Your task to perform on an android device: What is the news today? Image 0: 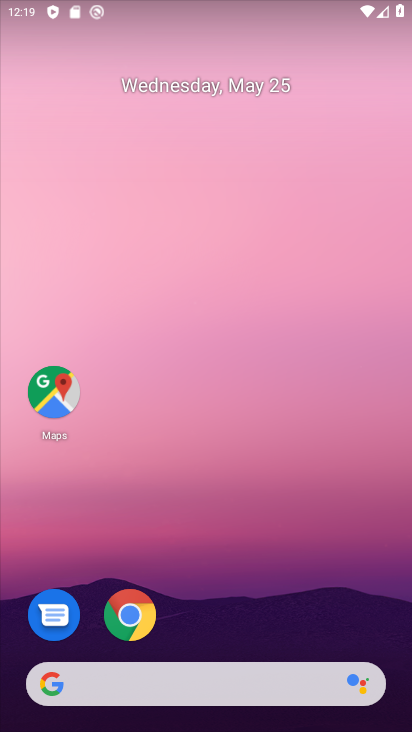
Step 0: click (165, 683)
Your task to perform on an android device: What is the news today? Image 1: 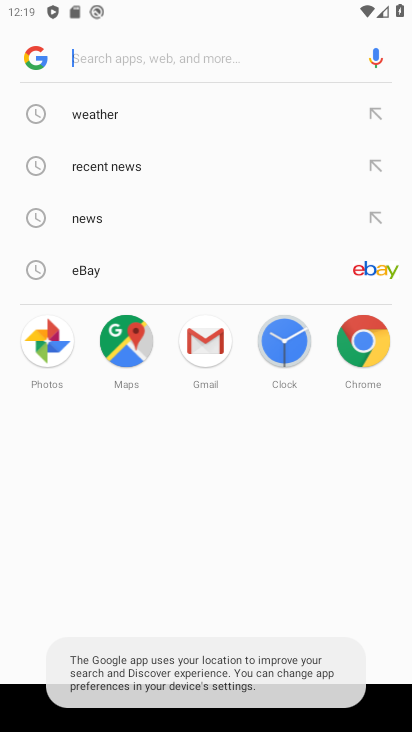
Step 1: click (91, 215)
Your task to perform on an android device: What is the news today? Image 2: 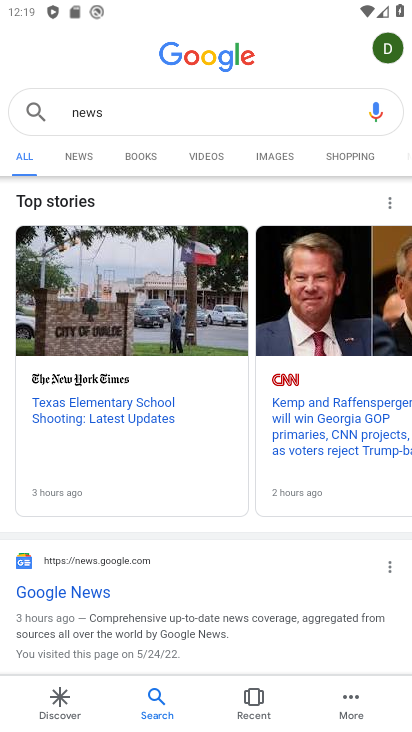
Step 2: task complete